Your task to perform on an android device: refresh tabs in the chrome app Image 0: 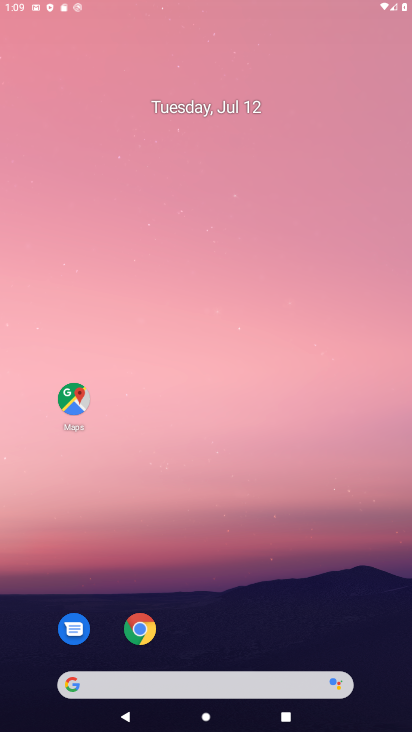
Step 0: drag from (327, 546) to (283, 126)
Your task to perform on an android device: refresh tabs in the chrome app Image 1: 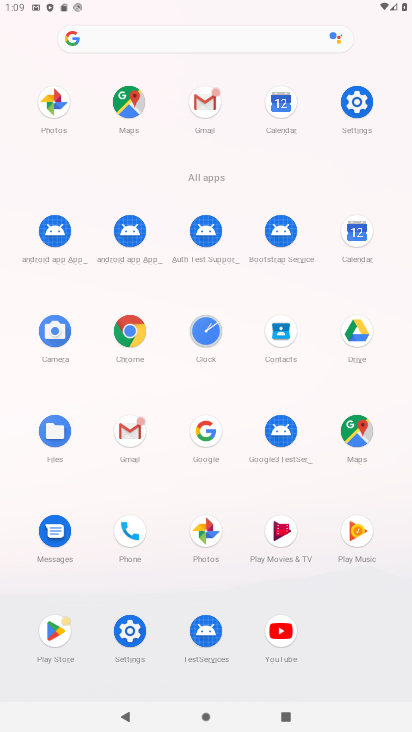
Step 1: click (133, 328)
Your task to perform on an android device: refresh tabs in the chrome app Image 2: 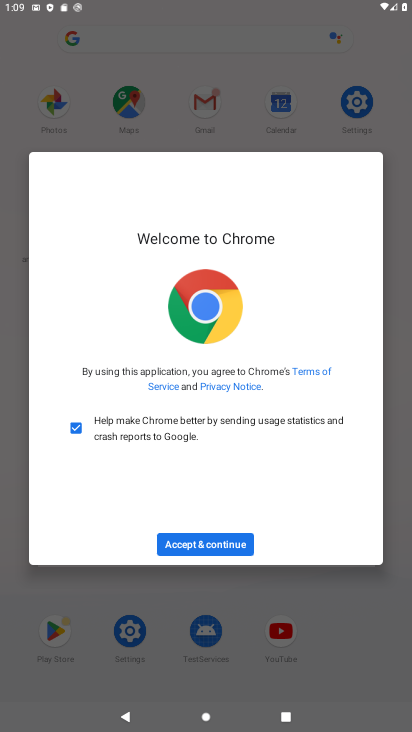
Step 2: click (230, 544)
Your task to perform on an android device: refresh tabs in the chrome app Image 3: 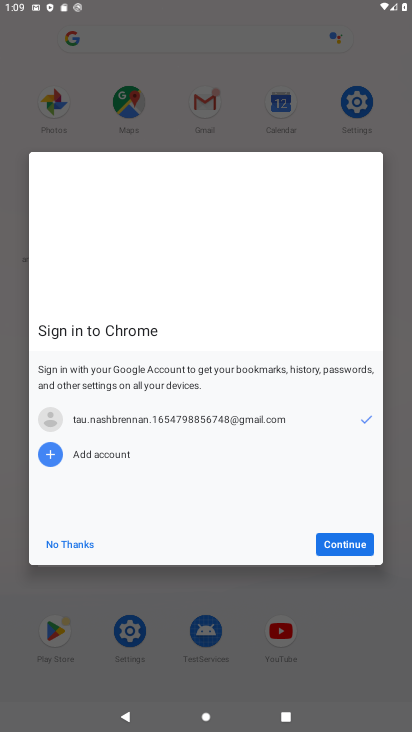
Step 3: click (361, 544)
Your task to perform on an android device: refresh tabs in the chrome app Image 4: 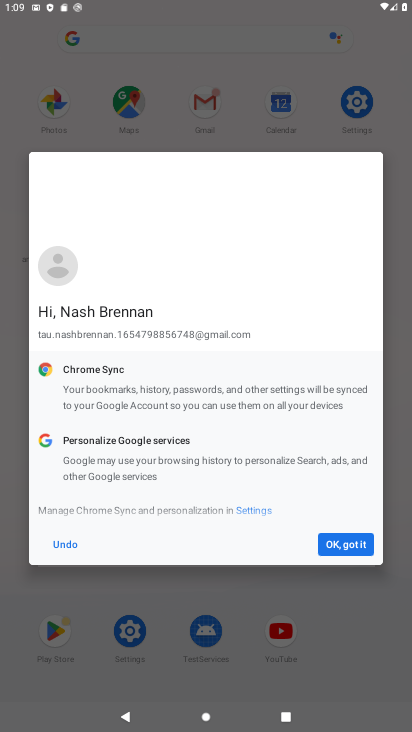
Step 4: click (341, 546)
Your task to perform on an android device: refresh tabs in the chrome app Image 5: 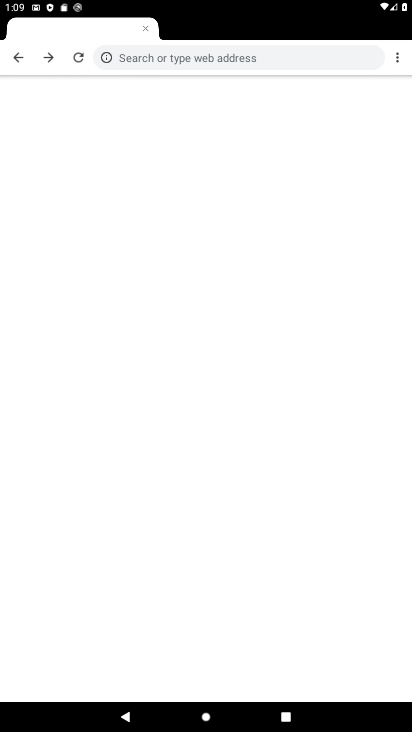
Step 5: drag from (400, 58) to (76, 51)
Your task to perform on an android device: refresh tabs in the chrome app Image 6: 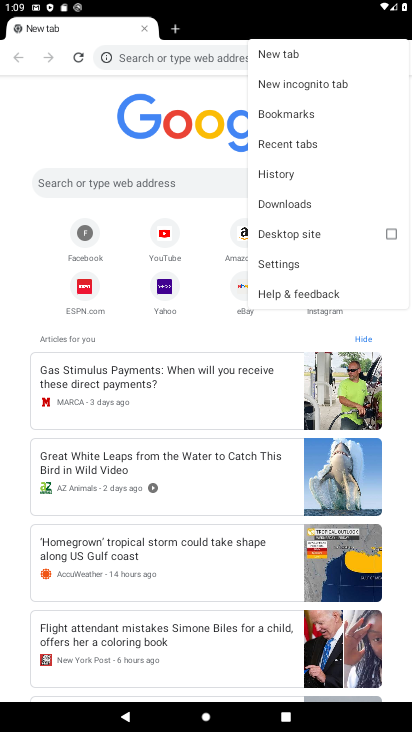
Step 6: click (76, 51)
Your task to perform on an android device: refresh tabs in the chrome app Image 7: 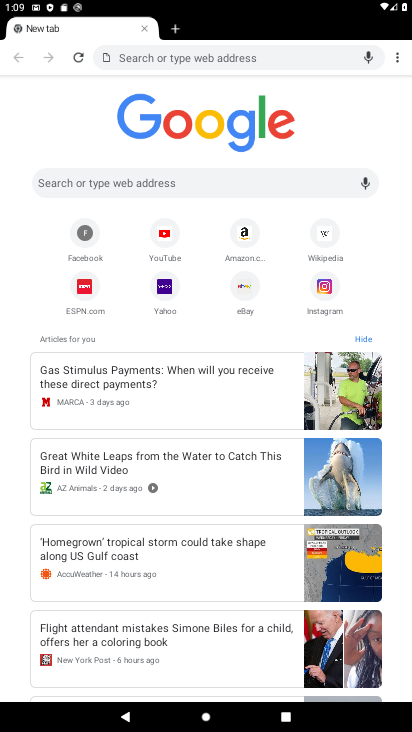
Step 7: task complete